Your task to perform on an android device: turn on data saver in the chrome app Image 0: 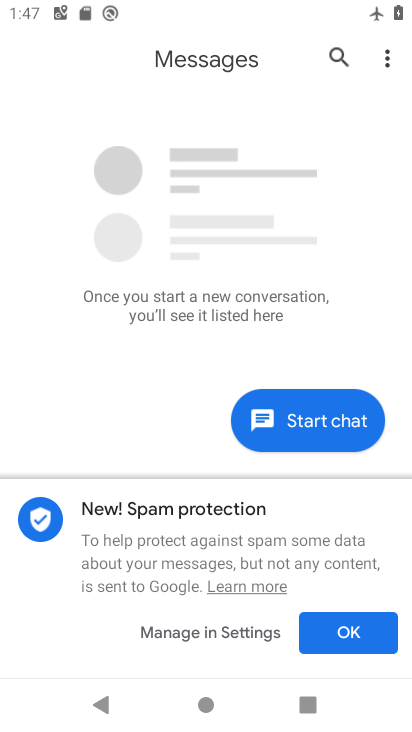
Step 0: press home button
Your task to perform on an android device: turn on data saver in the chrome app Image 1: 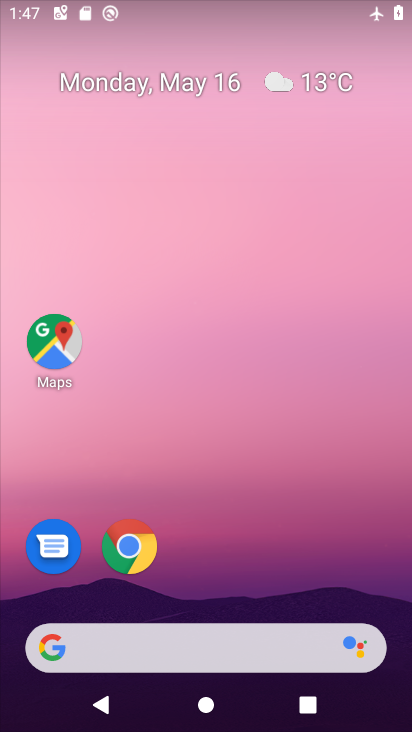
Step 1: click (126, 545)
Your task to perform on an android device: turn on data saver in the chrome app Image 2: 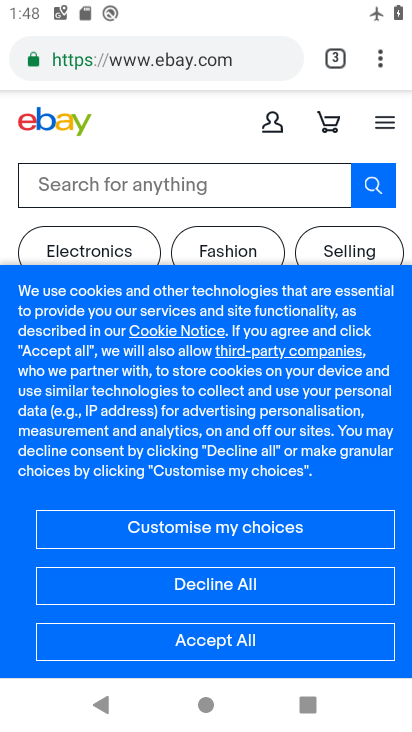
Step 2: click (378, 61)
Your task to perform on an android device: turn on data saver in the chrome app Image 3: 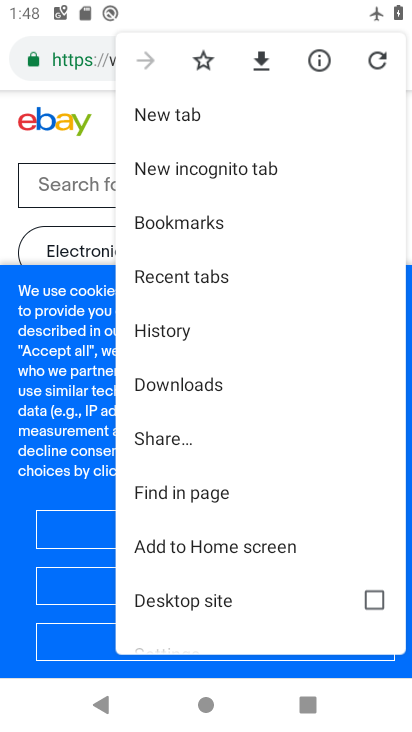
Step 3: drag from (189, 576) to (197, 273)
Your task to perform on an android device: turn on data saver in the chrome app Image 4: 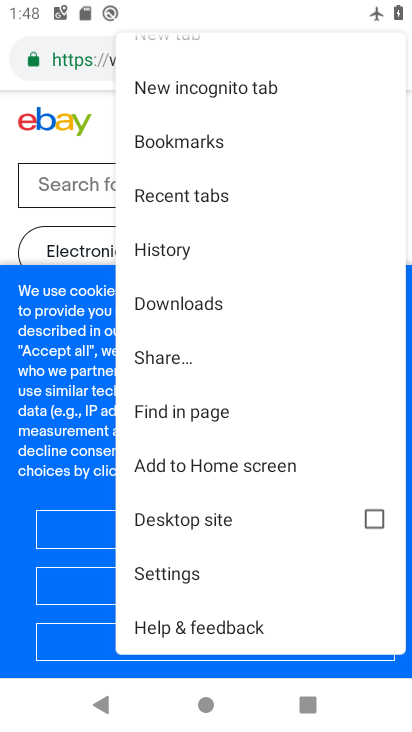
Step 4: click (176, 571)
Your task to perform on an android device: turn on data saver in the chrome app Image 5: 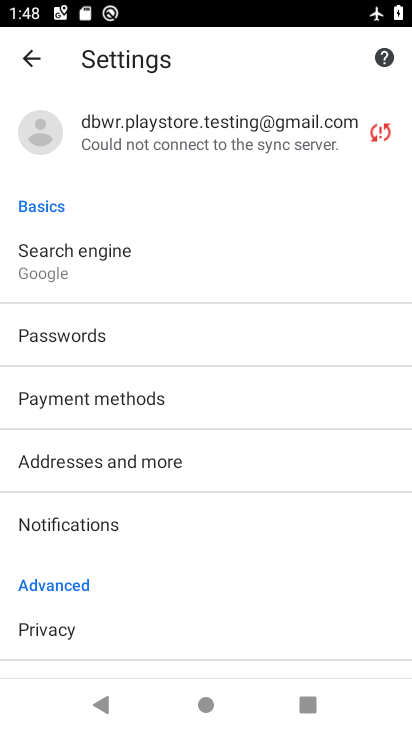
Step 5: drag from (151, 613) to (132, 258)
Your task to perform on an android device: turn on data saver in the chrome app Image 6: 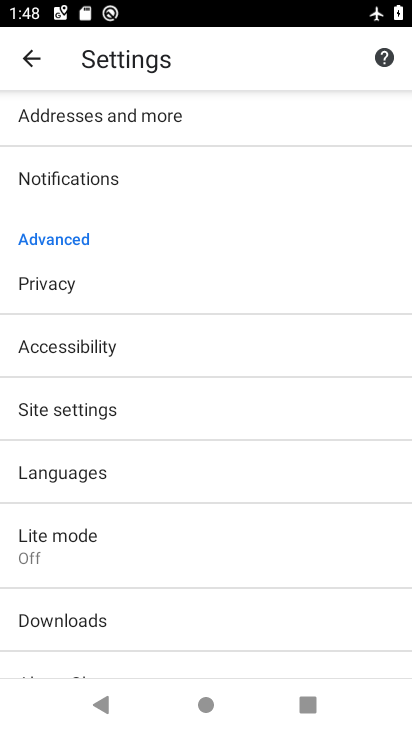
Step 6: click (68, 523)
Your task to perform on an android device: turn on data saver in the chrome app Image 7: 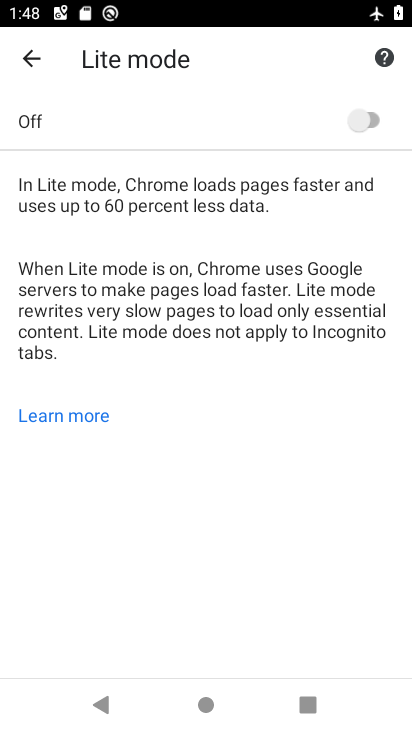
Step 7: click (372, 116)
Your task to perform on an android device: turn on data saver in the chrome app Image 8: 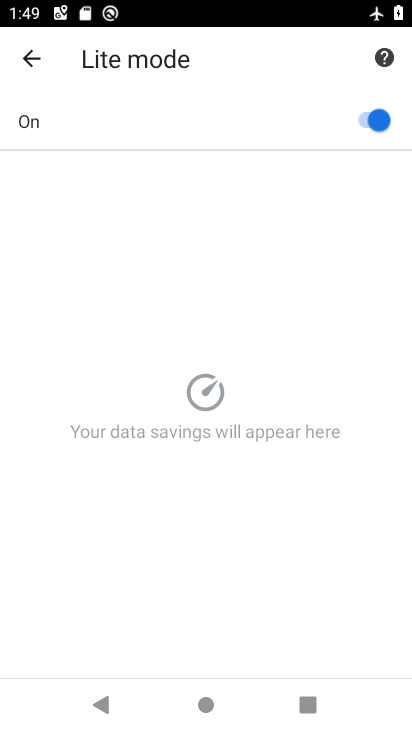
Step 8: task complete